Your task to perform on an android device: see creations saved in the google photos Image 0: 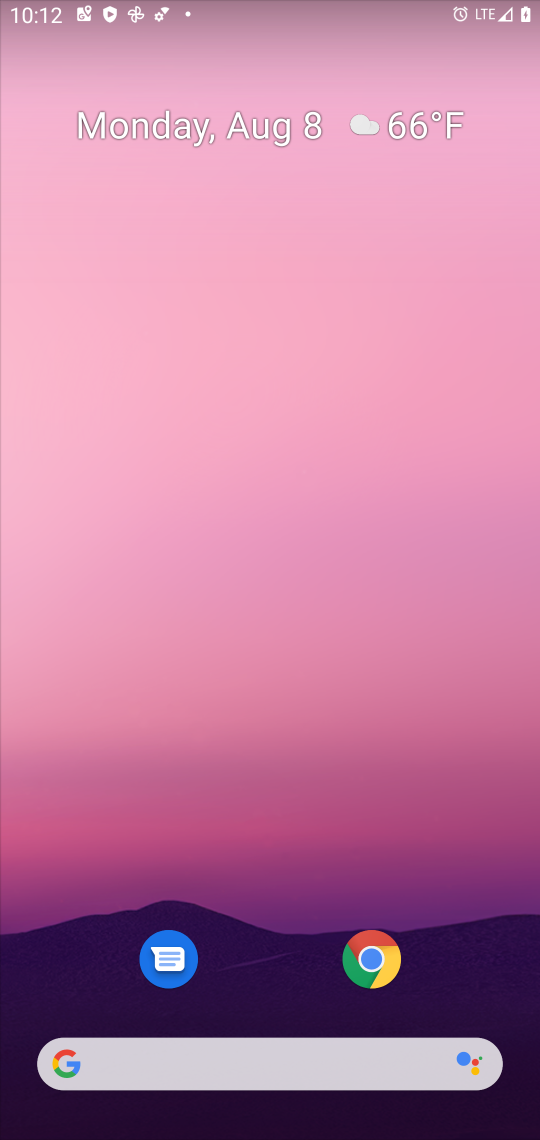
Step 0: drag from (475, 978) to (265, 4)
Your task to perform on an android device: see creations saved in the google photos Image 1: 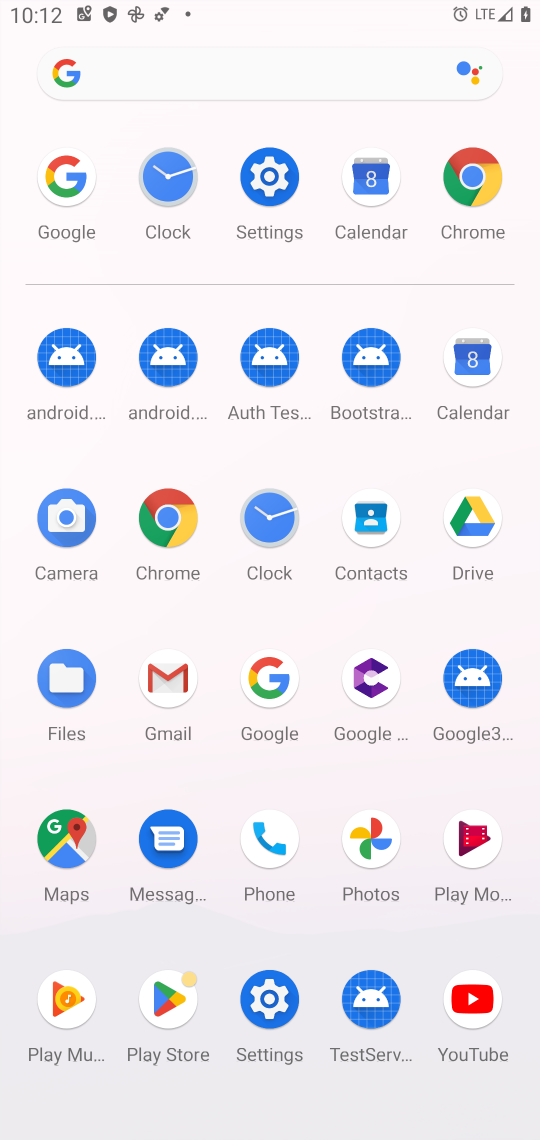
Step 1: click (361, 848)
Your task to perform on an android device: see creations saved in the google photos Image 2: 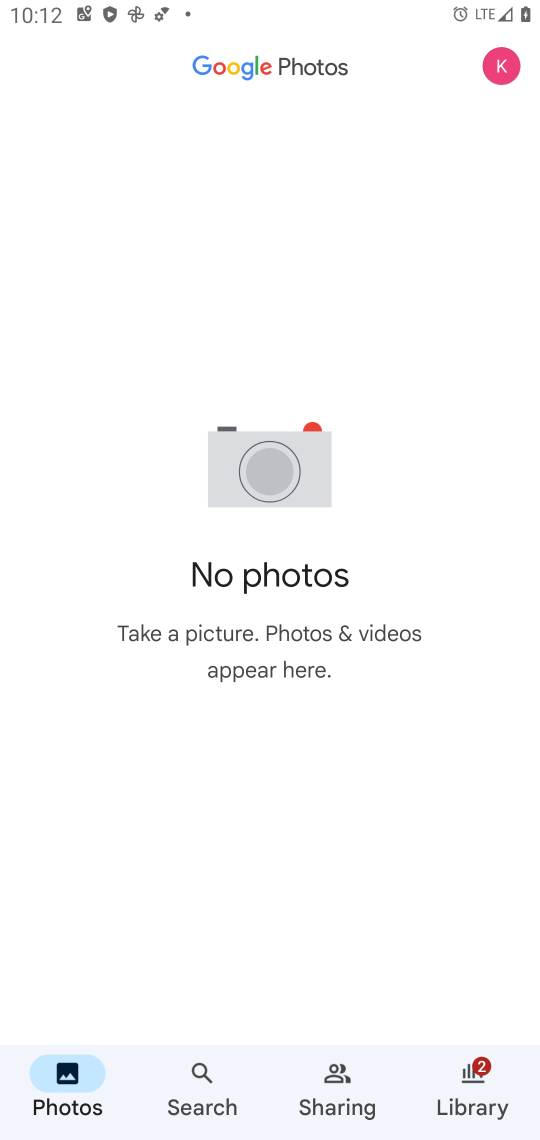
Step 2: click (186, 1070)
Your task to perform on an android device: see creations saved in the google photos Image 3: 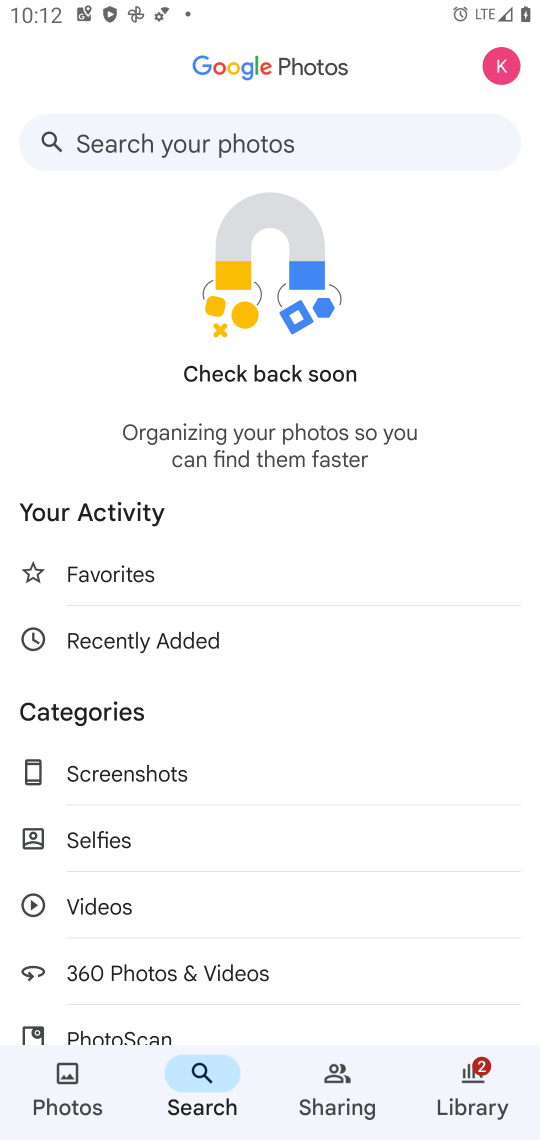
Step 3: drag from (129, 983) to (144, 62)
Your task to perform on an android device: see creations saved in the google photos Image 4: 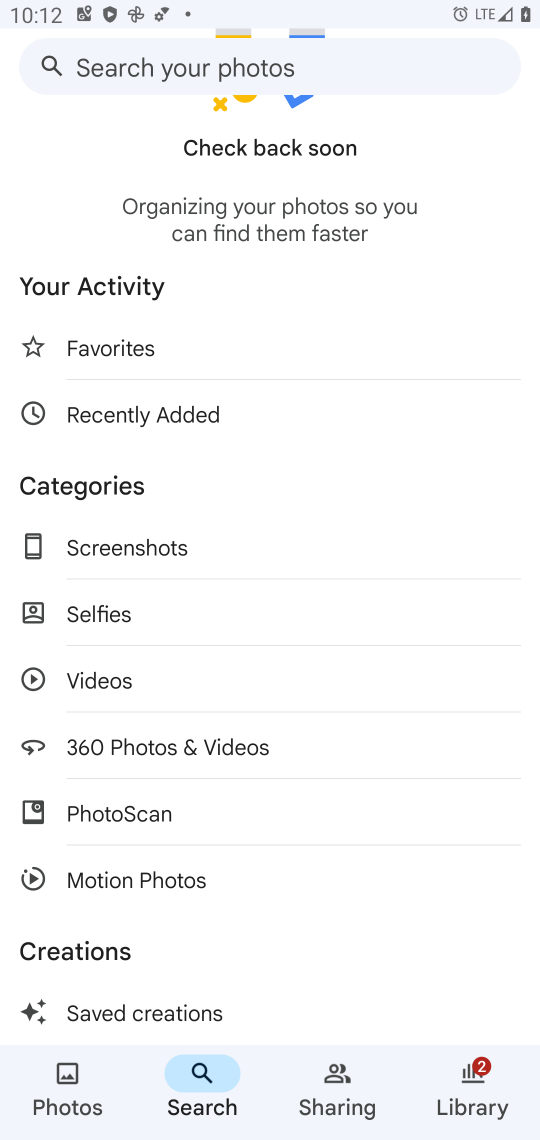
Step 4: click (97, 1006)
Your task to perform on an android device: see creations saved in the google photos Image 5: 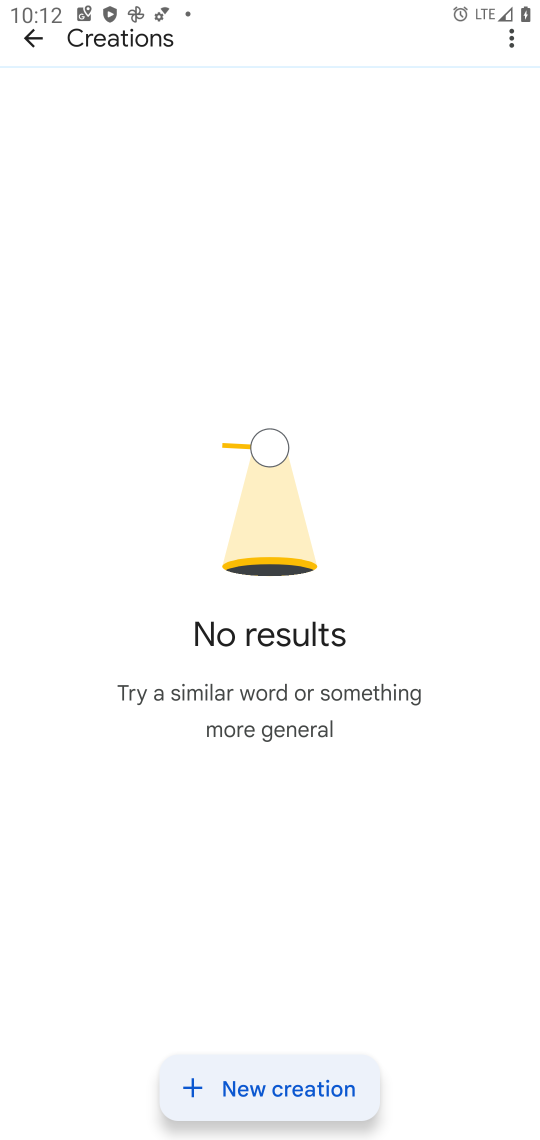
Step 5: task complete